Your task to perform on an android device: Show me popular videos on Youtube Image 0: 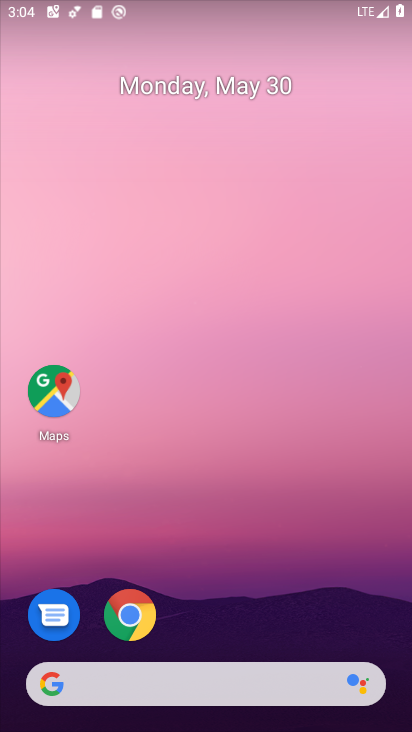
Step 0: drag from (211, 606) to (169, 7)
Your task to perform on an android device: Show me popular videos on Youtube Image 1: 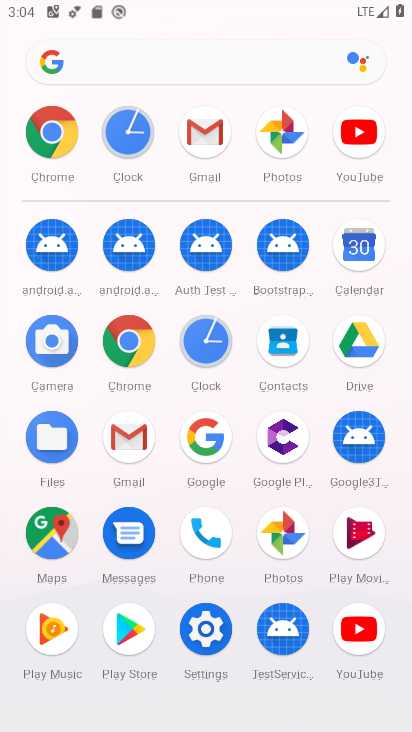
Step 1: click (362, 617)
Your task to perform on an android device: Show me popular videos on Youtube Image 2: 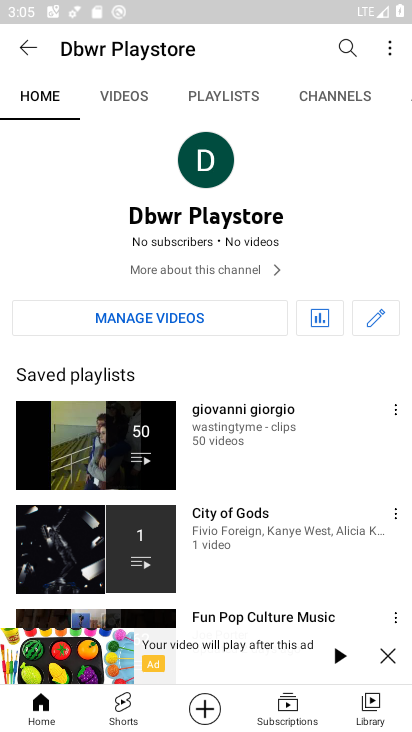
Step 2: click (346, 39)
Your task to perform on an android device: Show me popular videos on Youtube Image 3: 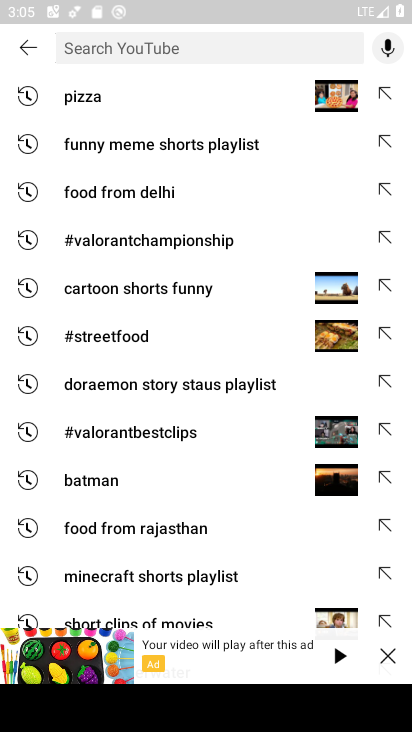
Step 3: type "popular videos"
Your task to perform on an android device: Show me popular videos on Youtube Image 4: 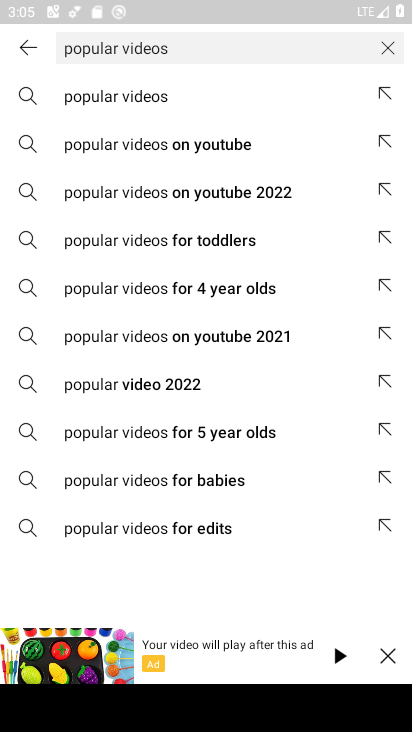
Step 4: click (234, 128)
Your task to perform on an android device: Show me popular videos on Youtube Image 5: 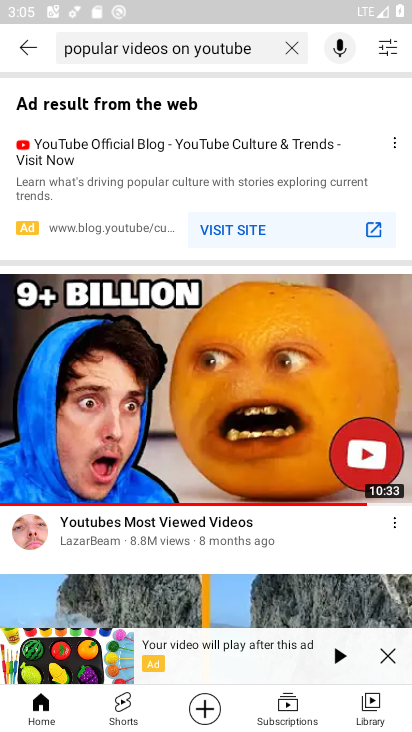
Step 5: task complete